Your task to perform on an android device: open chrome privacy settings Image 0: 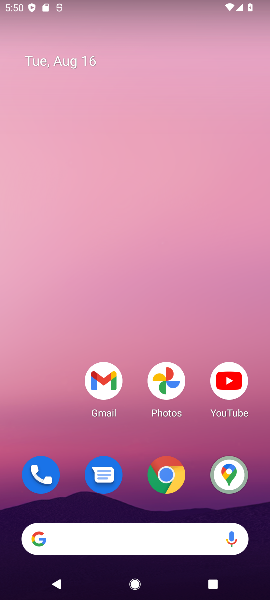
Step 0: drag from (209, 501) to (151, 29)
Your task to perform on an android device: open chrome privacy settings Image 1: 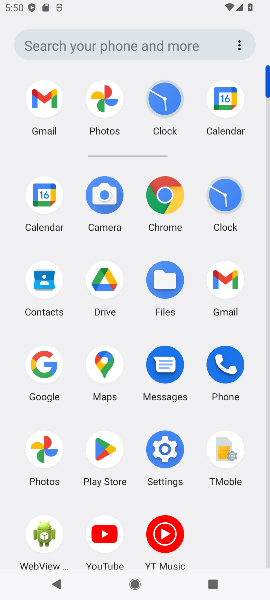
Step 1: click (168, 206)
Your task to perform on an android device: open chrome privacy settings Image 2: 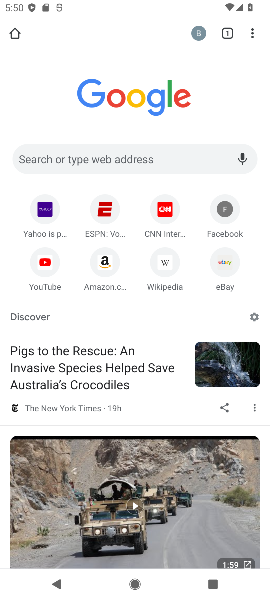
Step 2: click (252, 28)
Your task to perform on an android device: open chrome privacy settings Image 3: 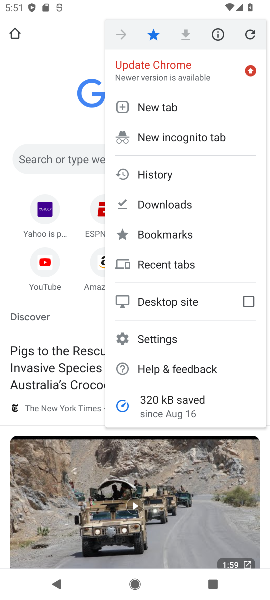
Step 3: click (157, 345)
Your task to perform on an android device: open chrome privacy settings Image 4: 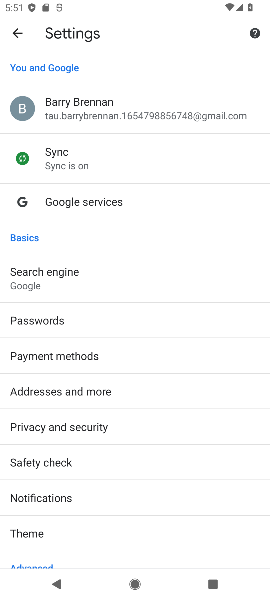
Step 4: task complete